Your task to perform on an android device: find photos in the google photos app Image 0: 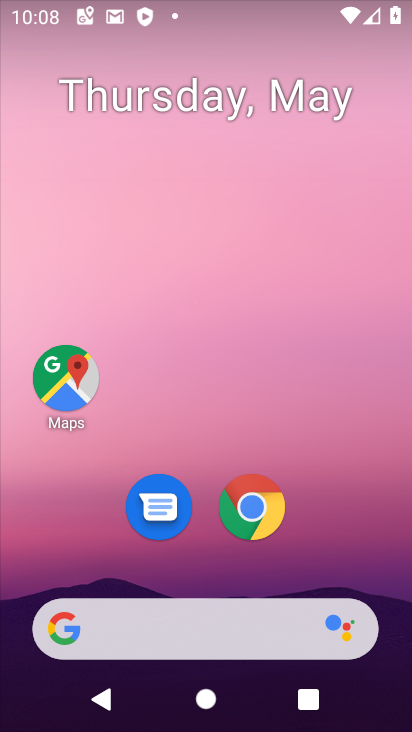
Step 0: drag from (155, 727) to (159, 71)
Your task to perform on an android device: find photos in the google photos app Image 1: 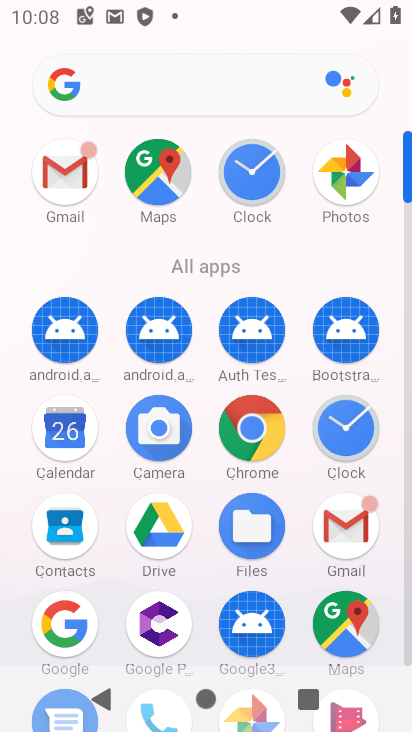
Step 1: click (346, 178)
Your task to perform on an android device: find photos in the google photos app Image 2: 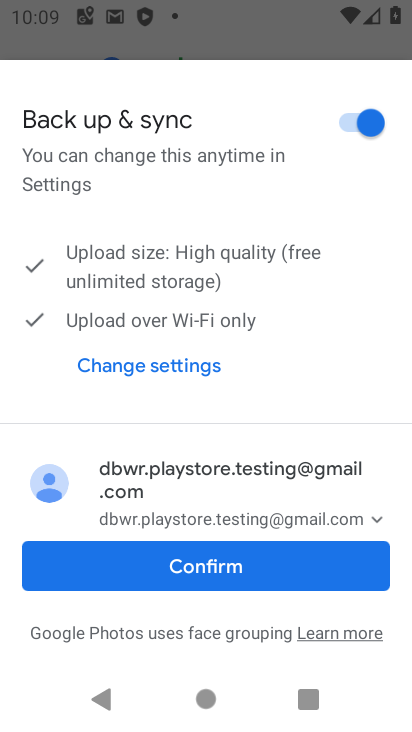
Step 2: click (182, 556)
Your task to perform on an android device: find photos in the google photos app Image 3: 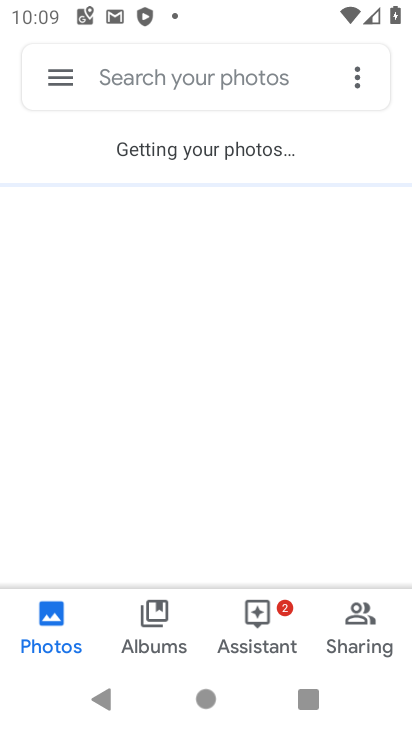
Step 3: click (161, 636)
Your task to perform on an android device: find photos in the google photos app Image 4: 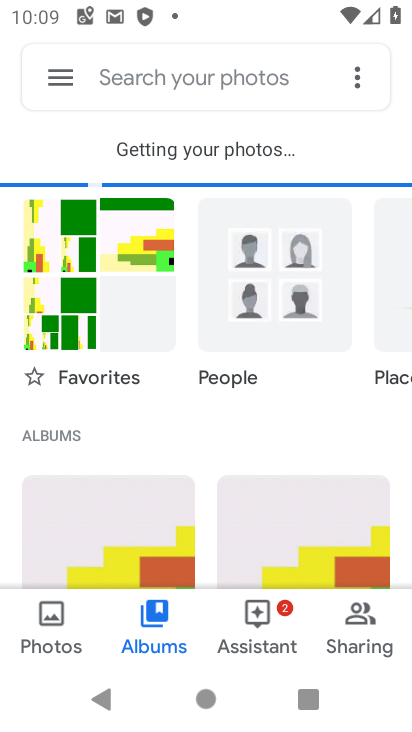
Step 4: click (110, 532)
Your task to perform on an android device: find photos in the google photos app Image 5: 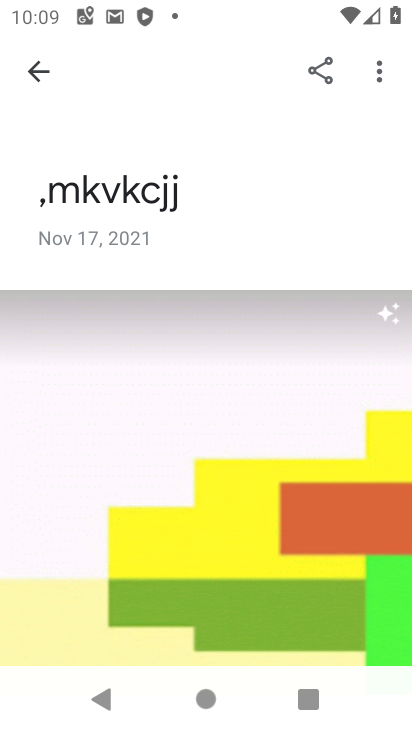
Step 5: task complete